Your task to perform on an android device: show emergency info Image 0: 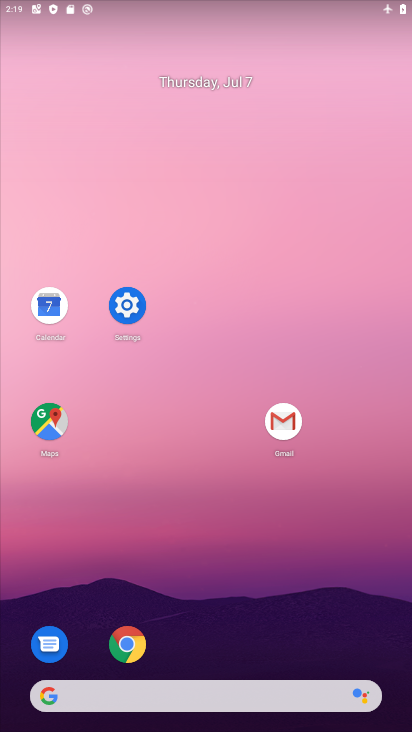
Step 0: click (125, 294)
Your task to perform on an android device: show emergency info Image 1: 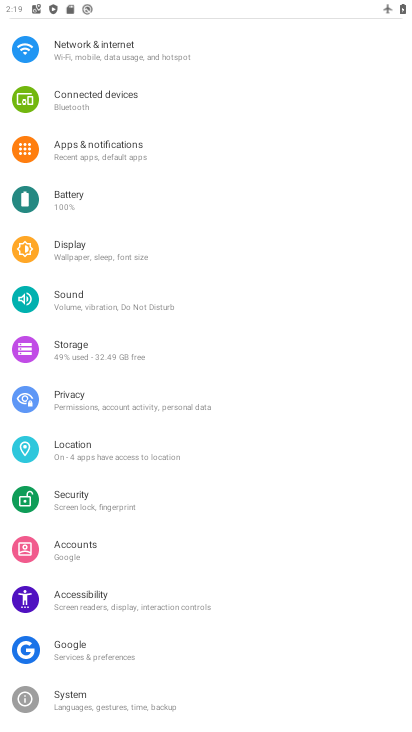
Step 1: drag from (160, 676) to (183, 408)
Your task to perform on an android device: show emergency info Image 2: 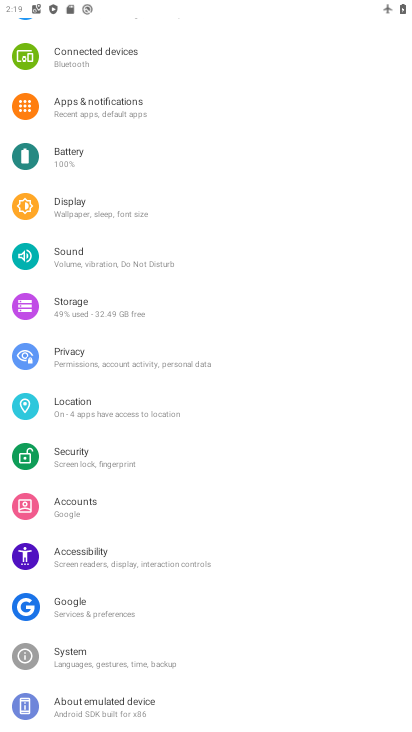
Step 2: click (76, 695)
Your task to perform on an android device: show emergency info Image 3: 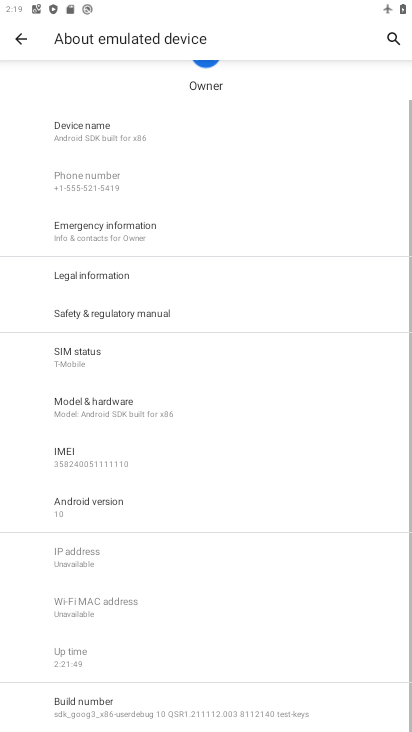
Step 3: click (130, 235)
Your task to perform on an android device: show emergency info Image 4: 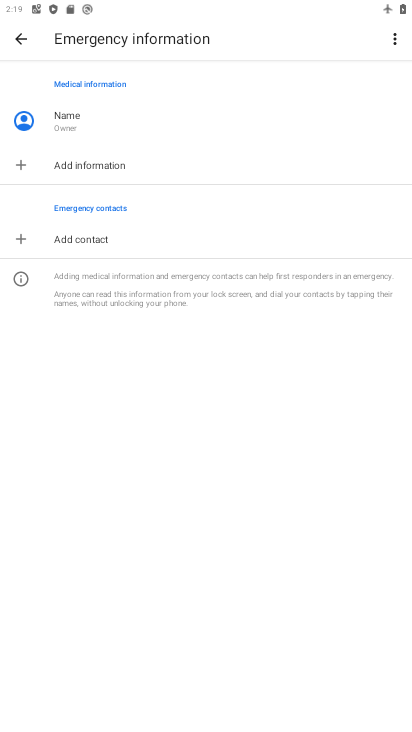
Step 4: task complete